Your task to perform on an android device: check storage Image 0: 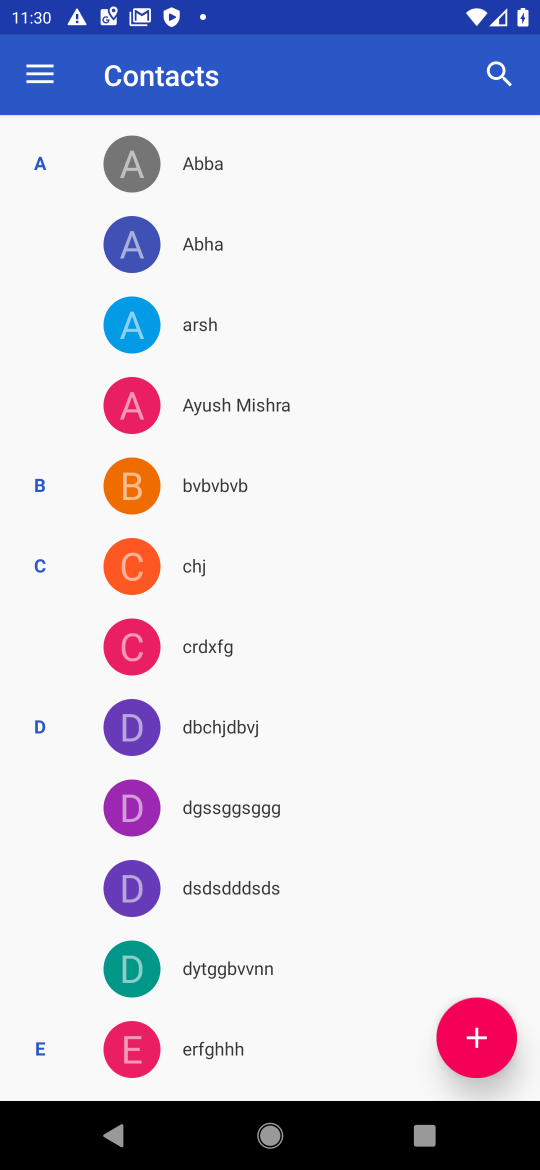
Step 0: press home button
Your task to perform on an android device: check storage Image 1: 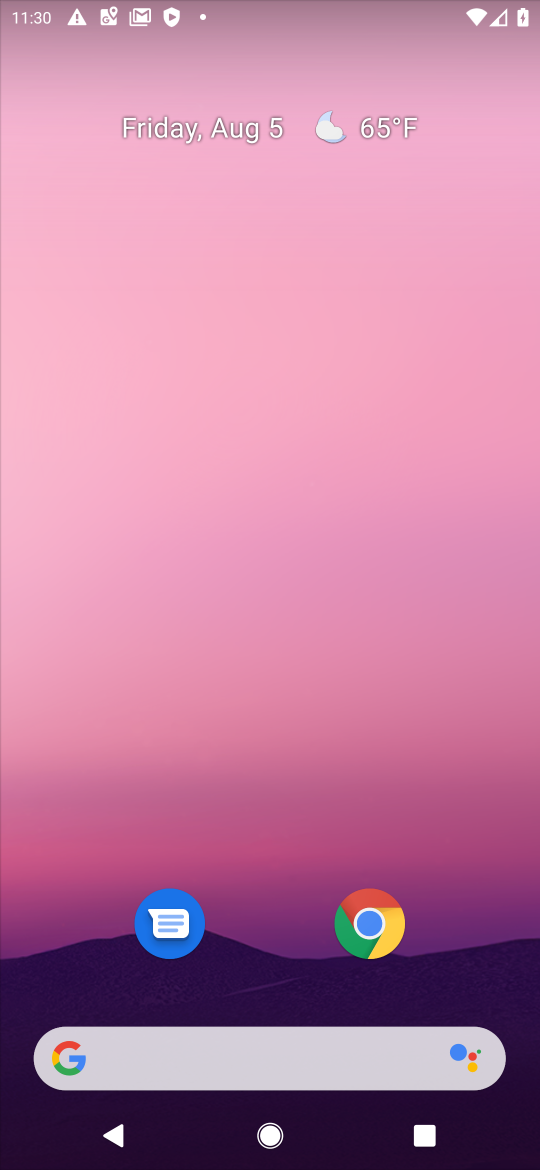
Step 1: drag from (322, 1052) to (317, 113)
Your task to perform on an android device: check storage Image 2: 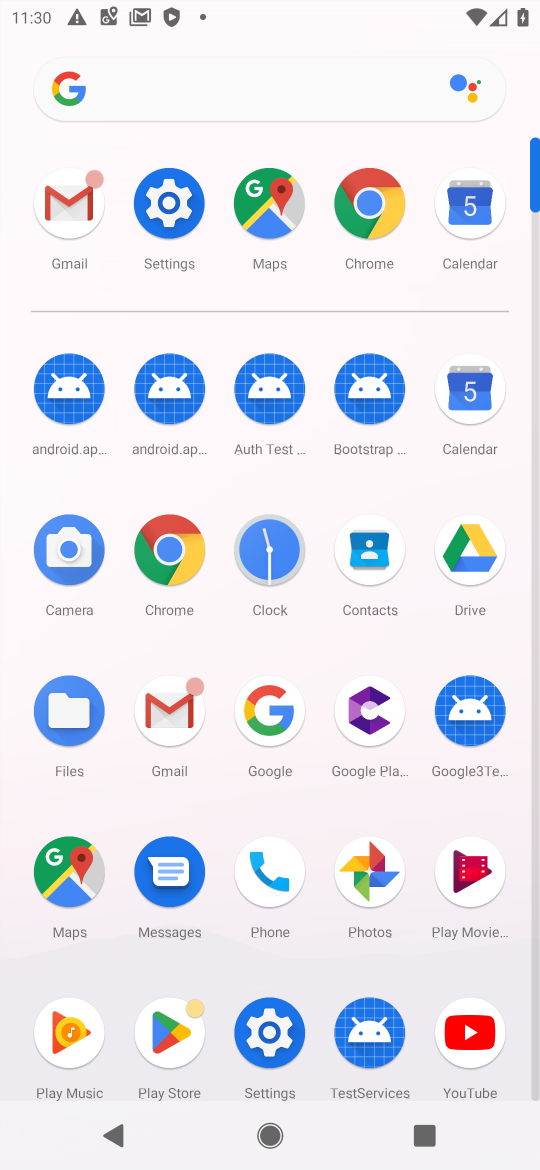
Step 2: click (154, 229)
Your task to perform on an android device: check storage Image 3: 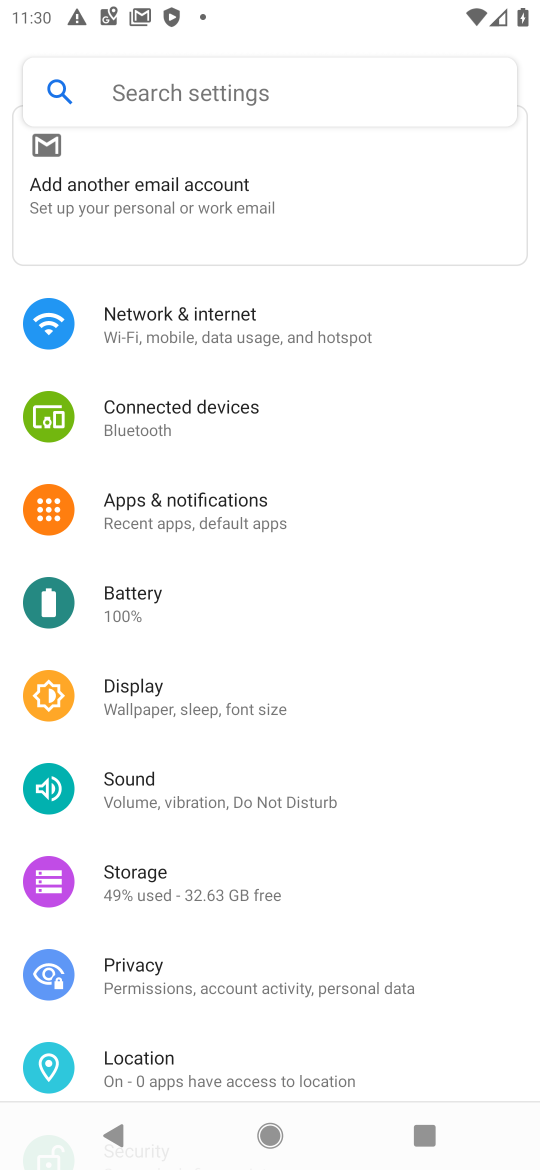
Step 3: click (155, 879)
Your task to perform on an android device: check storage Image 4: 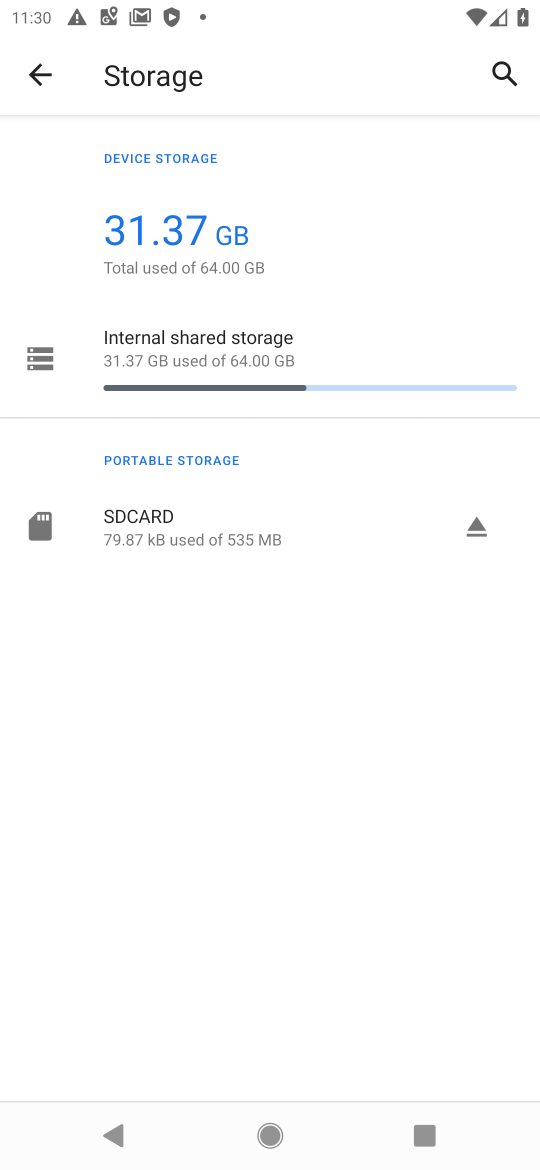
Step 4: task complete